Your task to perform on an android device: turn on the 24-hour format for clock Image 0: 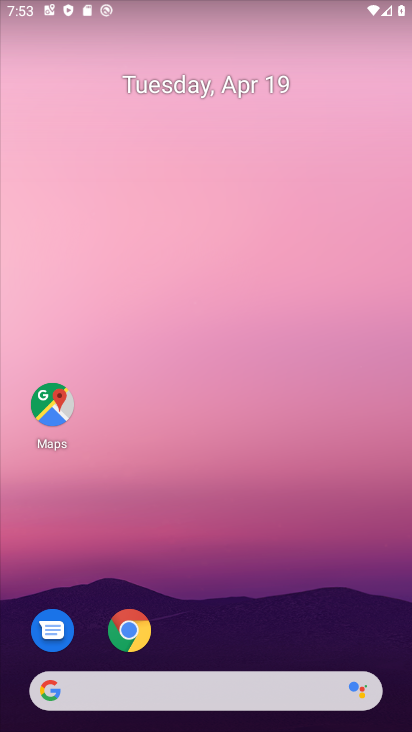
Step 0: drag from (252, 466) to (213, 2)
Your task to perform on an android device: turn on the 24-hour format for clock Image 1: 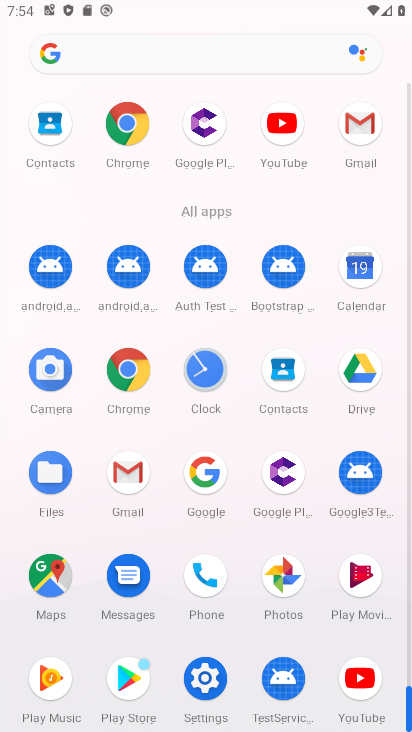
Step 1: drag from (13, 503) to (11, 281)
Your task to perform on an android device: turn on the 24-hour format for clock Image 2: 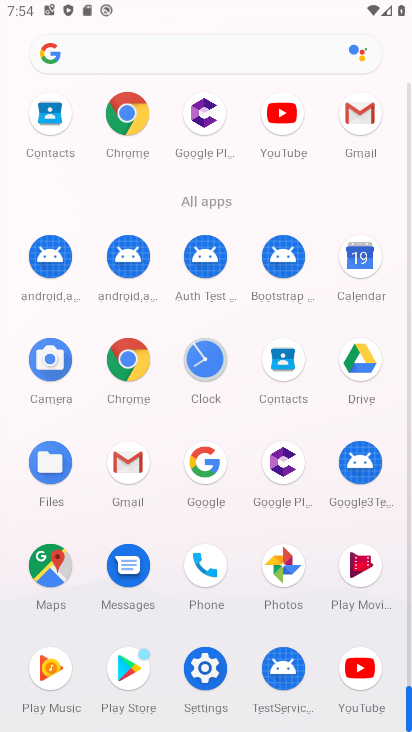
Step 2: click (199, 358)
Your task to perform on an android device: turn on the 24-hour format for clock Image 3: 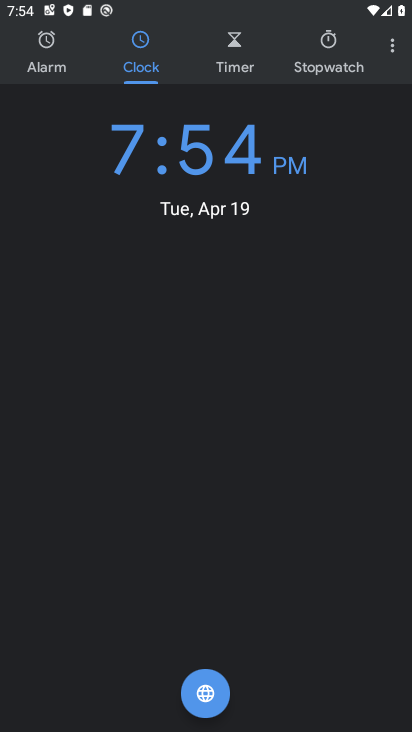
Step 3: click (388, 51)
Your task to perform on an android device: turn on the 24-hour format for clock Image 4: 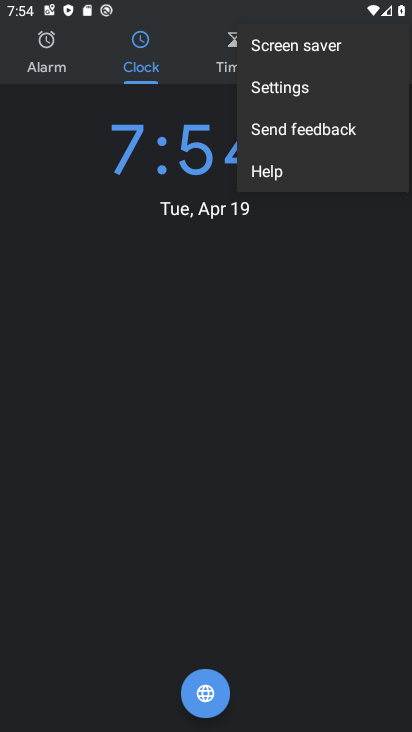
Step 4: click (278, 86)
Your task to perform on an android device: turn on the 24-hour format for clock Image 5: 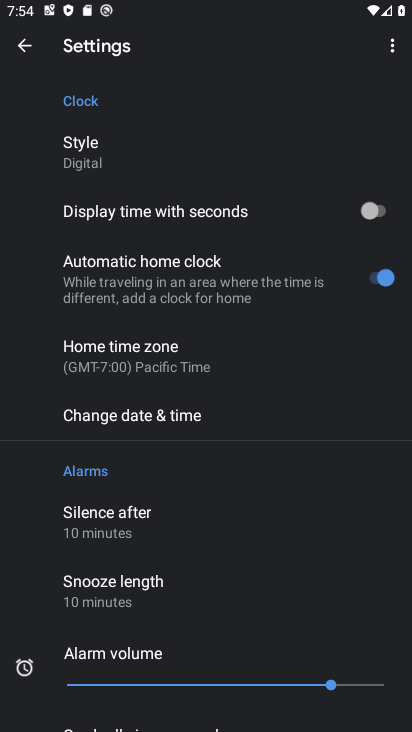
Step 5: click (162, 416)
Your task to perform on an android device: turn on the 24-hour format for clock Image 6: 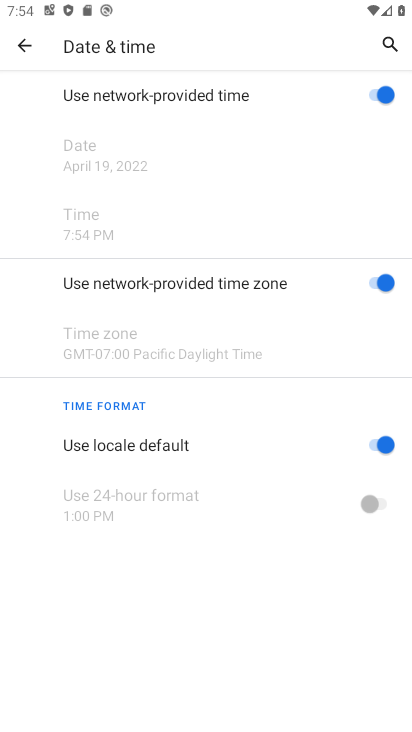
Step 6: click (377, 439)
Your task to perform on an android device: turn on the 24-hour format for clock Image 7: 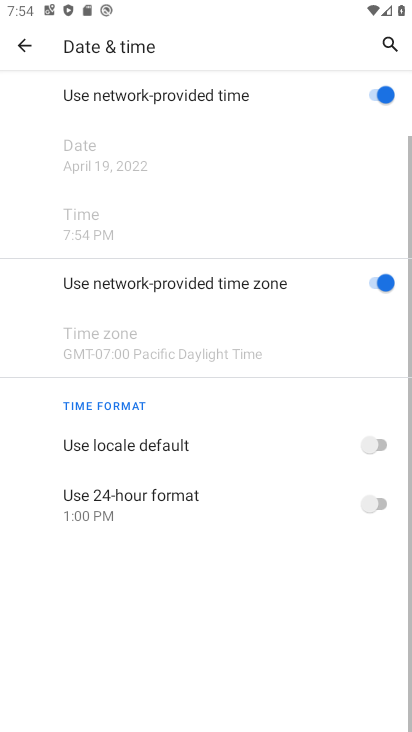
Step 7: click (375, 507)
Your task to perform on an android device: turn on the 24-hour format for clock Image 8: 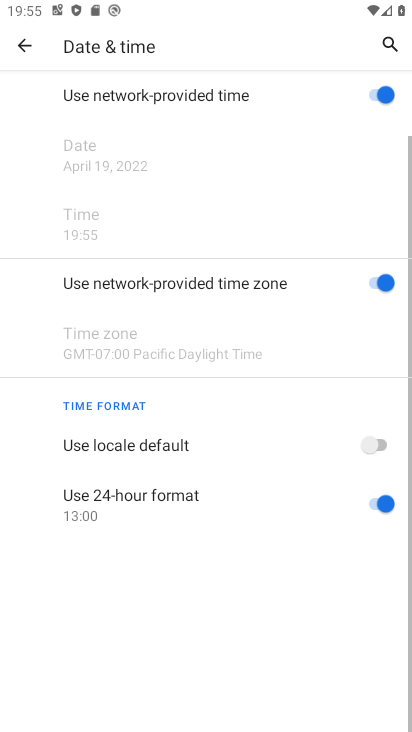
Step 8: task complete